Your task to perform on an android device: What's on my calendar tomorrow? Image 0: 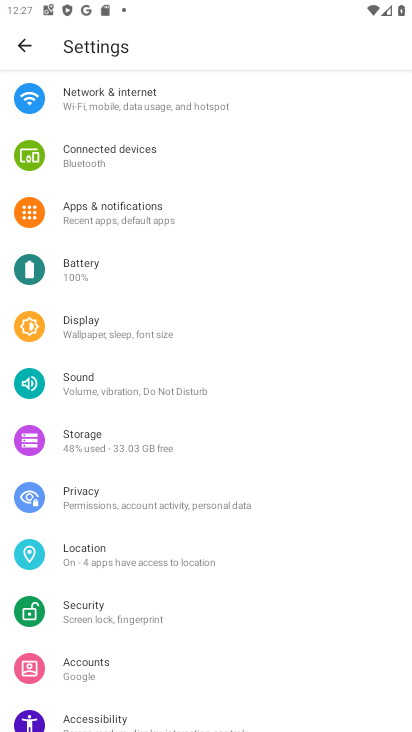
Step 0: press home button
Your task to perform on an android device: What's on my calendar tomorrow? Image 1: 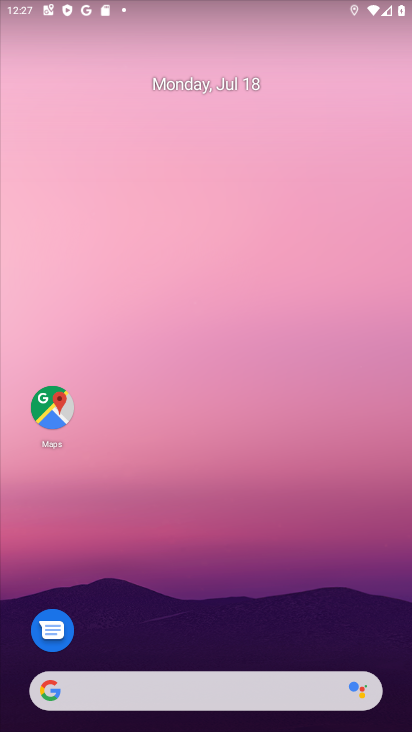
Step 1: drag from (235, 593) to (262, 4)
Your task to perform on an android device: What's on my calendar tomorrow? Image 2: 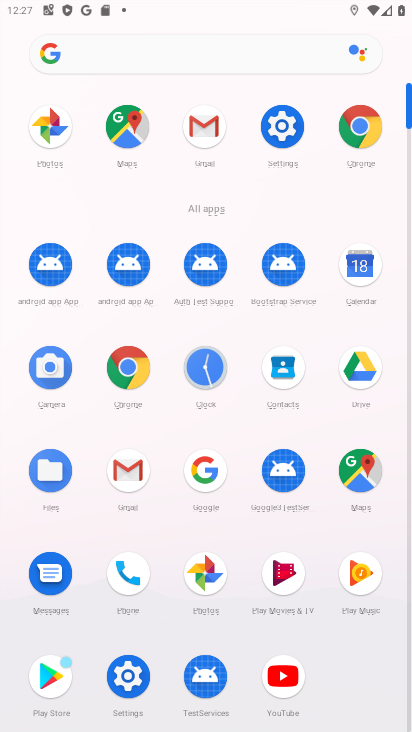
Step 2: click (349, 275)
Your task to perform on an android device: What's on my calendar tomorrow? Image 3: 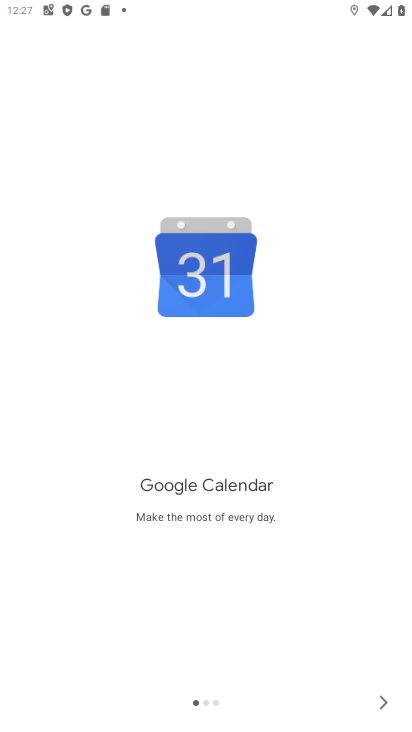
Step 3: click (378, 698)
Your task to perform on an android device: What's on my calendar tomorrow? Image 4: 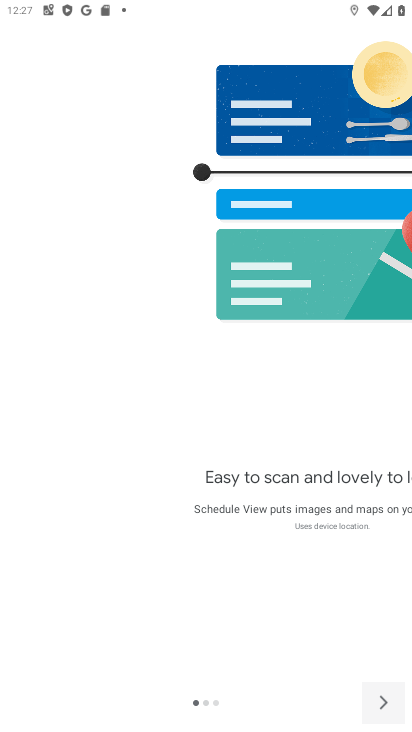
Step 4: click (378, 698)
Your task to perform on an android device: What's on my calendar tomorrow? Image 5: 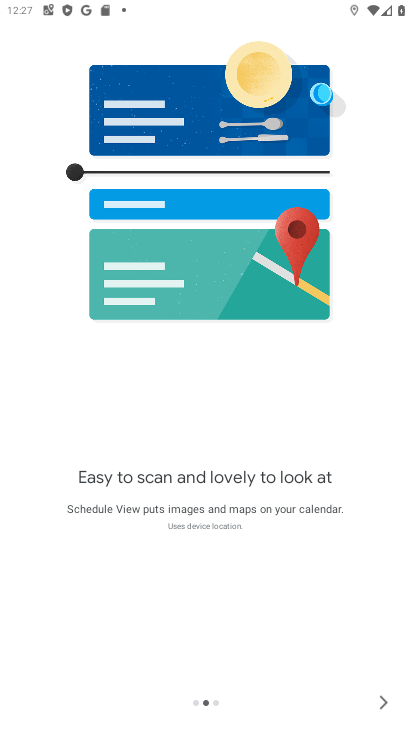
Step 5: click (378, 698)
Your task to perform on an android device: What's on my calendar tomorrow? Image 6: 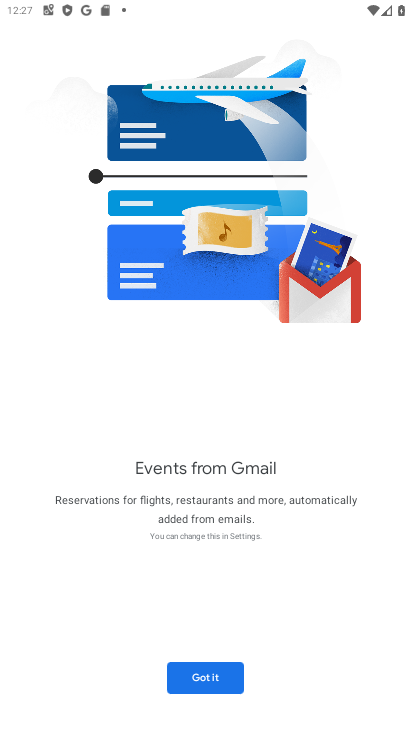
Step 6: click (209, 683)
Your task to perform on an android device: What's on my calendar tomorrow? Image 7: 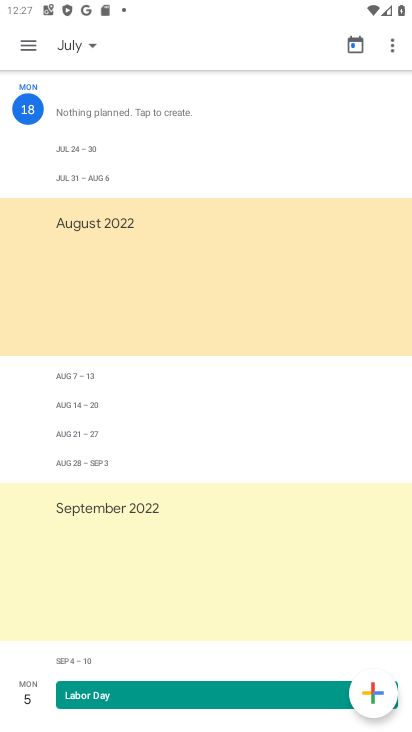
Step 7: click (87, 49)
Your task to perform on an android device: What's on my calendar tomorrow? Image 8: 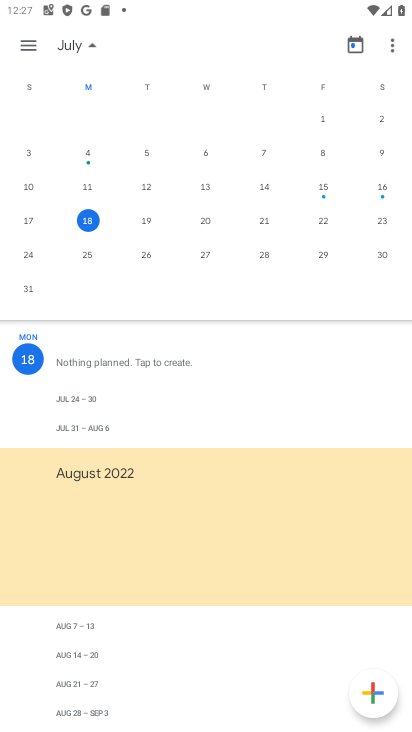
Step 8: click (159, 220)
Your task to perform on an android device: What's on my calendar tomorrow? Image 9: 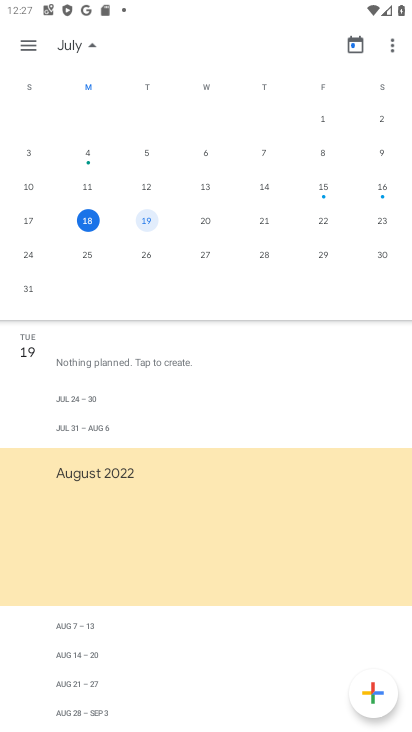
Step 9: task complete